Your task to perform on an android device: snooze an email in the gmail app Image 0: 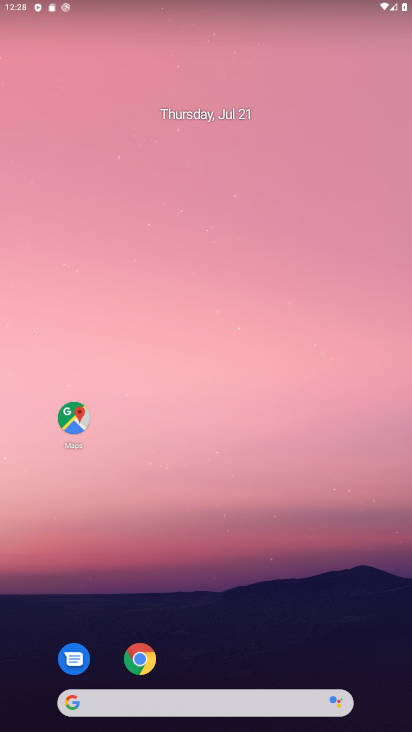
Step 0: drag from (204, 704) to (273, 184)
Your task to perform on an android device: snooze an email in the gmail app Image 1: 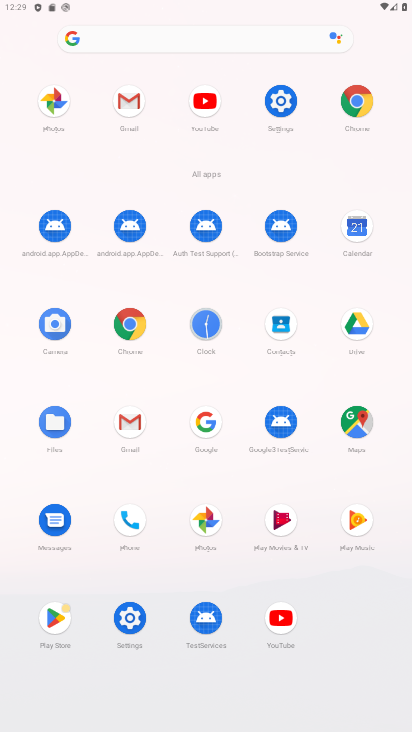
Step 1: click (129, 422)
Your task to perform on an android device: snooze an email in the gmail app Image 2: 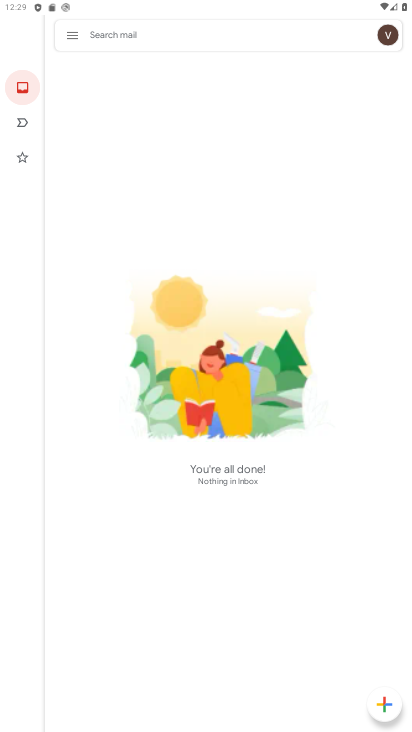
Step 2: click (75, 34)
Your task to perform on an android device: snooze an email in the gmail app Image 3: 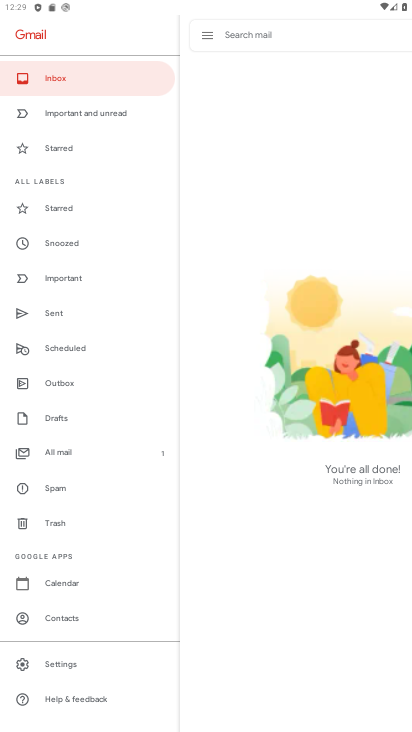
Step 3: click (58, 449)
Your task to perform on an android device: snooze an email in the gmail app Image 4: 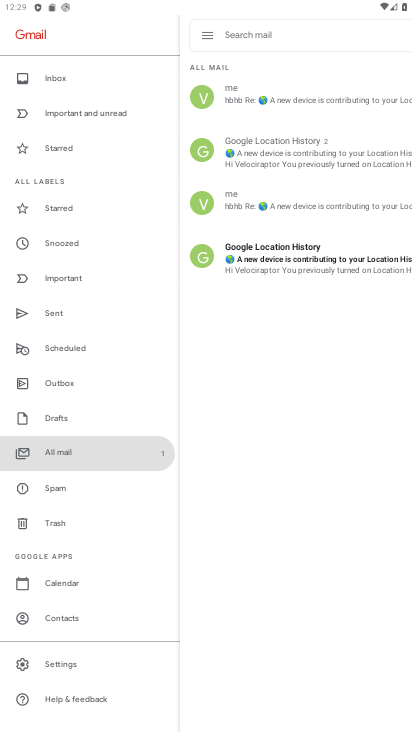
Step 4: click (290, 103)
Your task to perform on an android device: snooze an email in the gmail app Image 5: 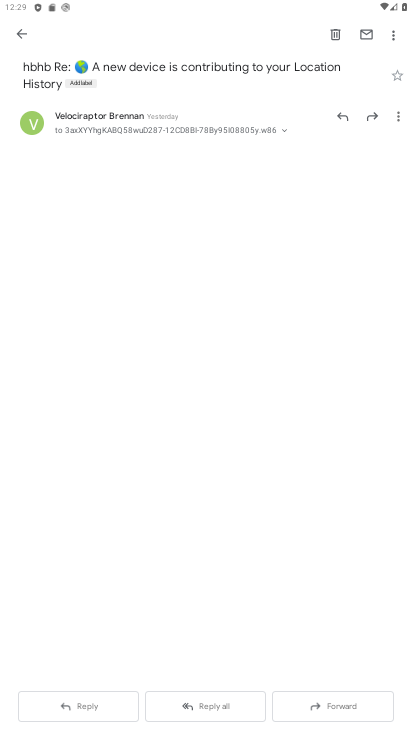
Step 5: click (393, 37)
Your task to perform on an android device: snooze an email in the gmail app Image 6: 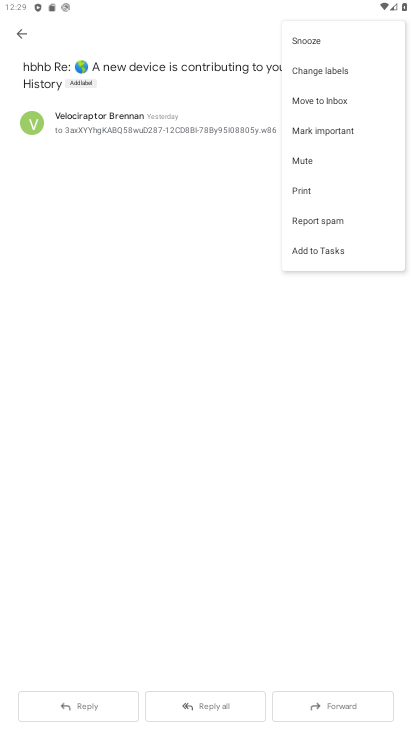
Step 6: click (314, 42)
Your task to perform on an android device: snooze an email in the gmail app Image 7: 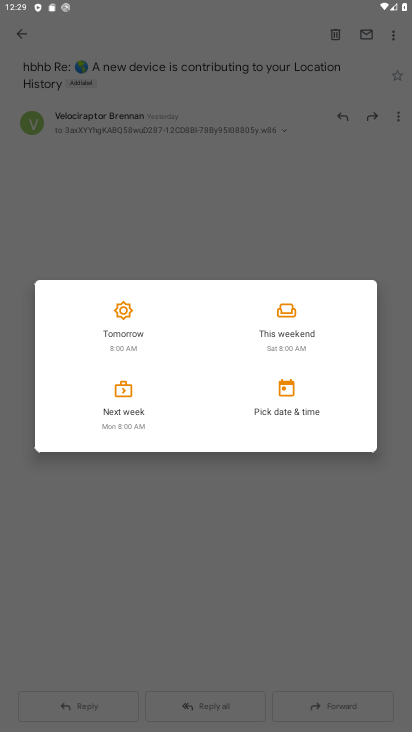
Step 7: click (126, 390)
Your task to perform on an android device: snooze an email in the gmail app Image 8: 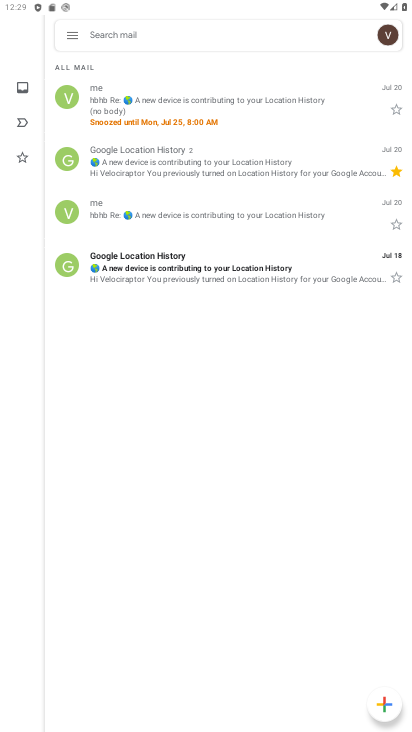
Step 8: task complete